Your task to perform on an android device: manage bookmarks in the chrome app Image 0: 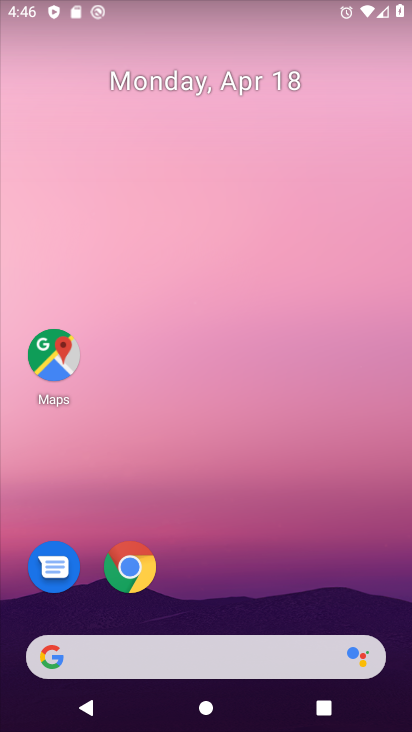
Step 0: click (128, 571)
Your task to perform on an android device: manage bookmarks in the chrome app Image 1: 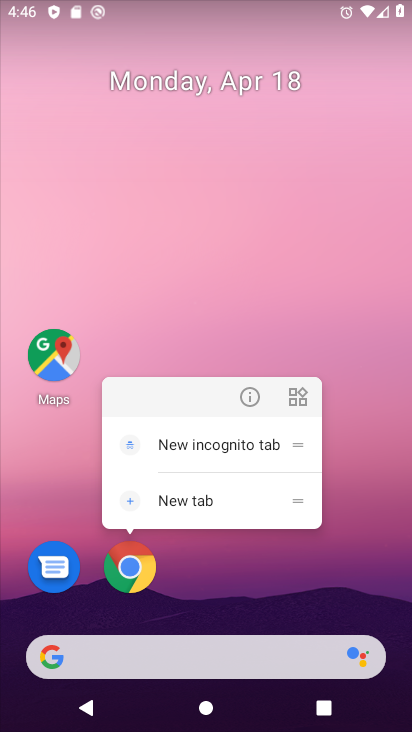
Step 1: click (133, 569)
Your task to perform on an android device: manage bookmarks in the chrome app Image 2: 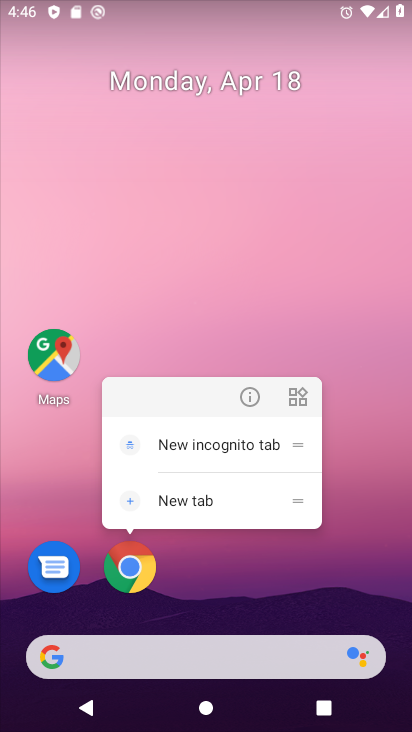
Step 2: click (133, 569)
Your task to perform on an android device: manage bookmarks in the chrome app Image 3: 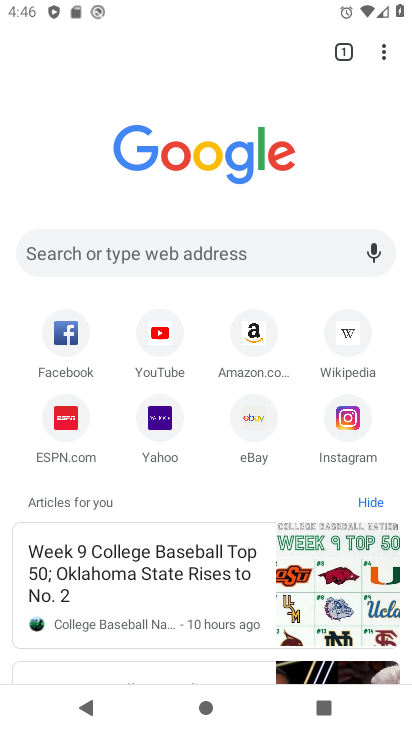
Step 3: click (390, 50)
Your task to perform on an android device: manage bookmarks in the chrome app Image 4: 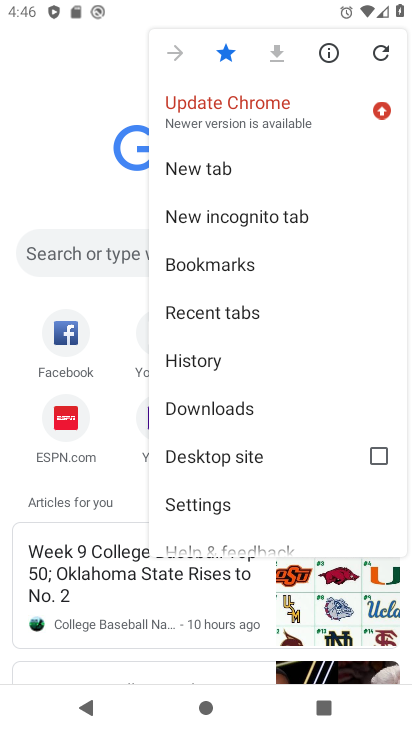
Step 4: click (231, 269)
Your task to perform on an android device: manage bookmarks in the chrome app Image 5: 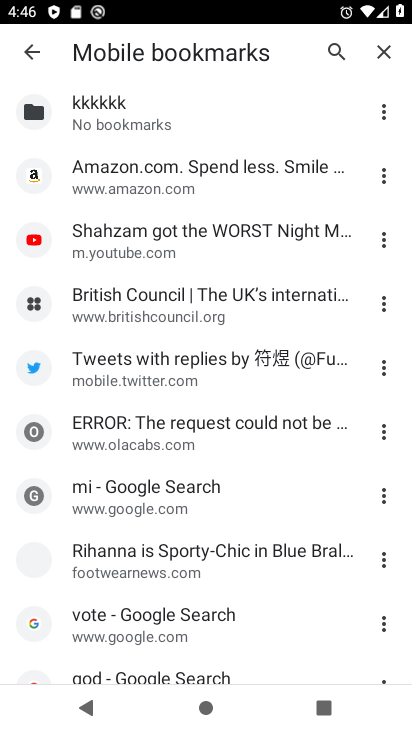
Step 5: click (383, 114)
Your task to perform on an android device: manage bookmarks in the chrome app Image 6: 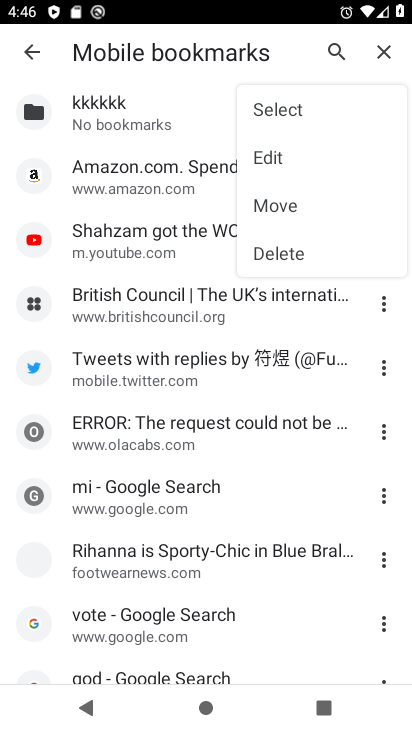
Step 6: click (259, 169)
Your task to perform on an android device: manage bookmarks in the chrome app Image 7: 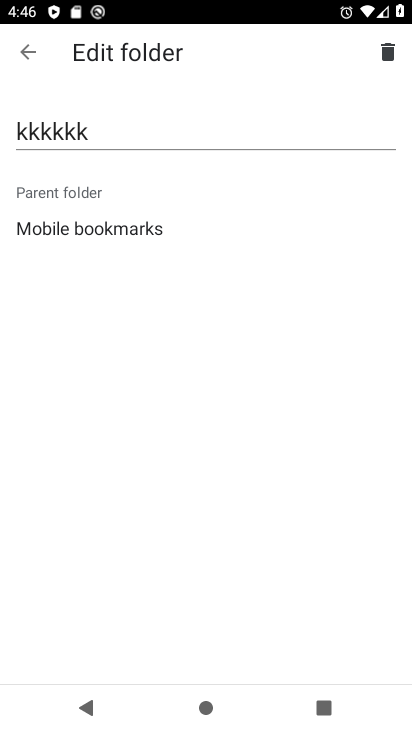
Step 7: click (385, 60)
Your task to perform on an android device: manage bookmarks in the chrome app Image 8: 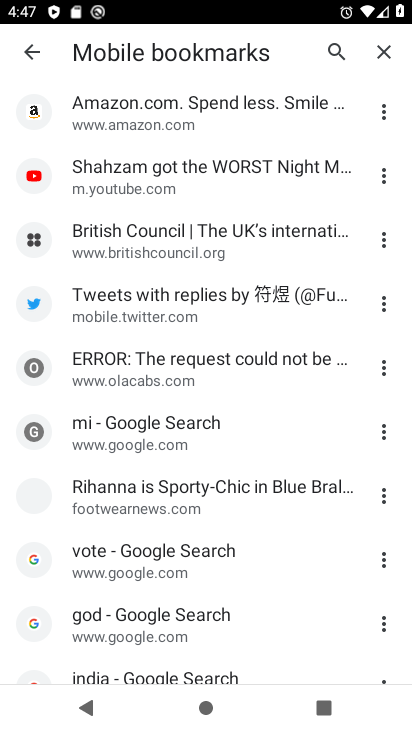
Step 8: task complete